Your task to perform on an android device: Open display settings Image 0: 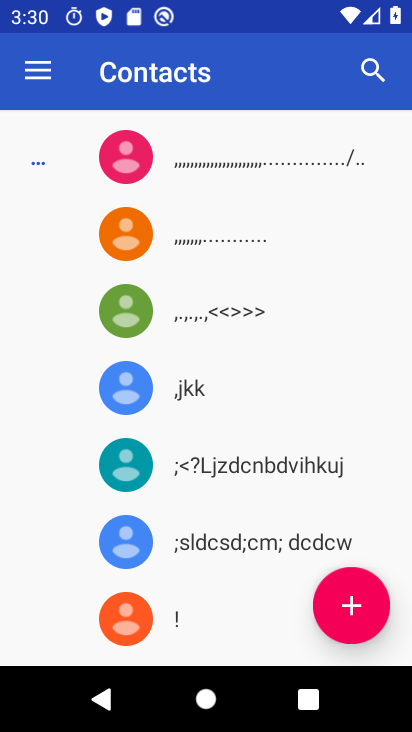
Step 0: press home button
Your task to perform on an android device: Open display settings Image 1: 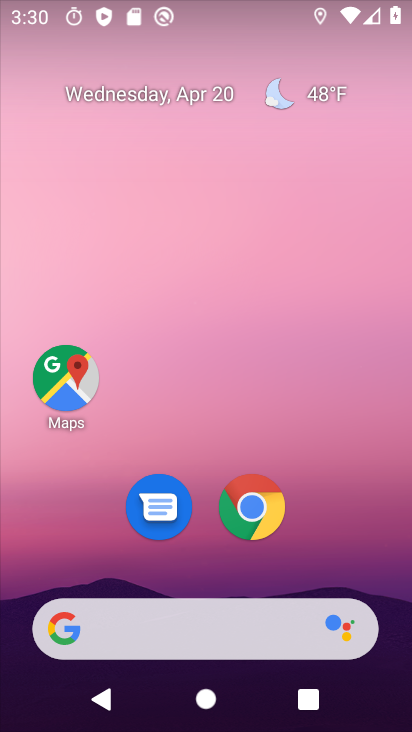
Step 1: drag from (205, 649) to (246, 303)
Your task to perform on an android device: Open display settings Image 2: 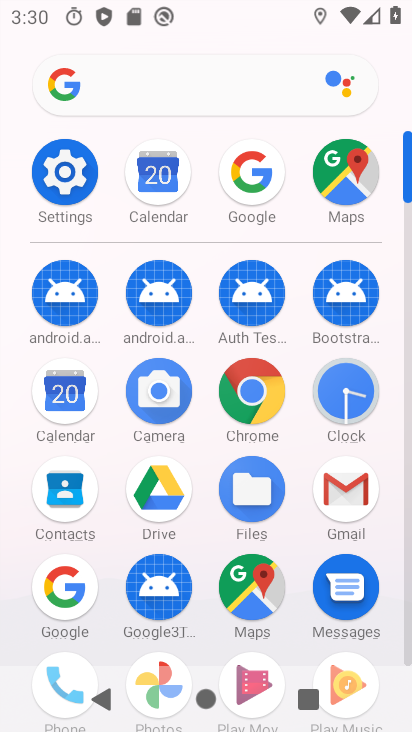
Step 2: click (68, 167)
Your task to perform on an android device: Open display settings Image 3: 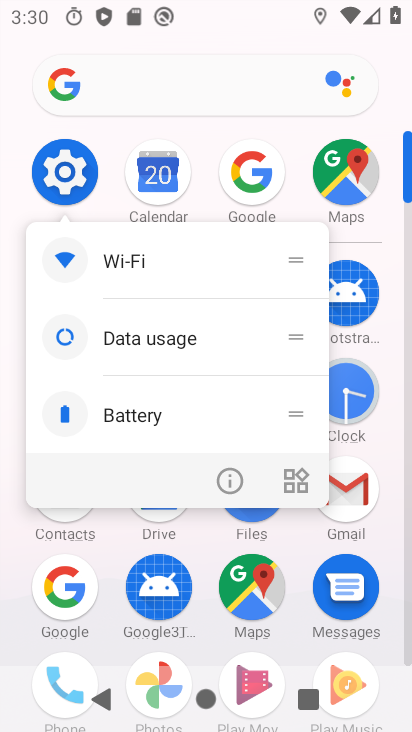
Step 3: click (75, 180)
Your task to perform on an android device: Open display settings Image 4: 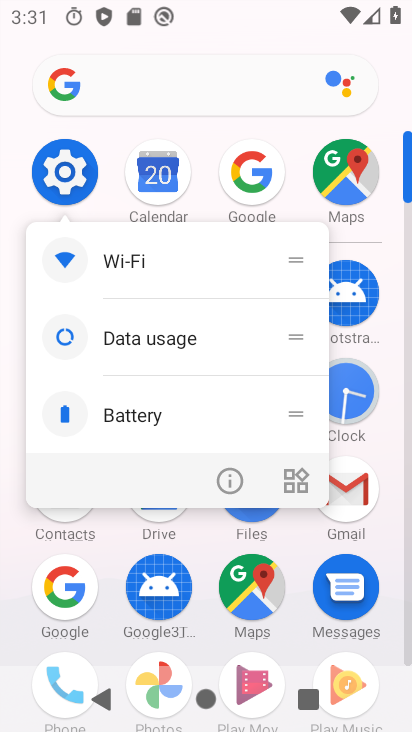
Step 4: click (63, 178)
Your task to perform on an android device: Open display settings Image 5: 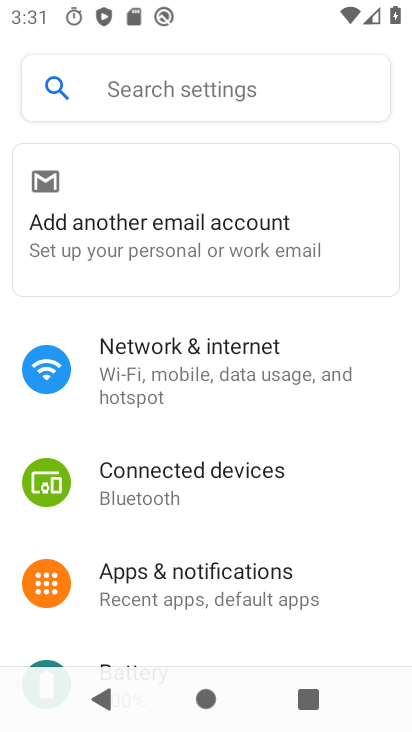
Step 5: drag from (146, 513) to (147, 248)
Your task to perform on an android device: Open display settings Image 6: 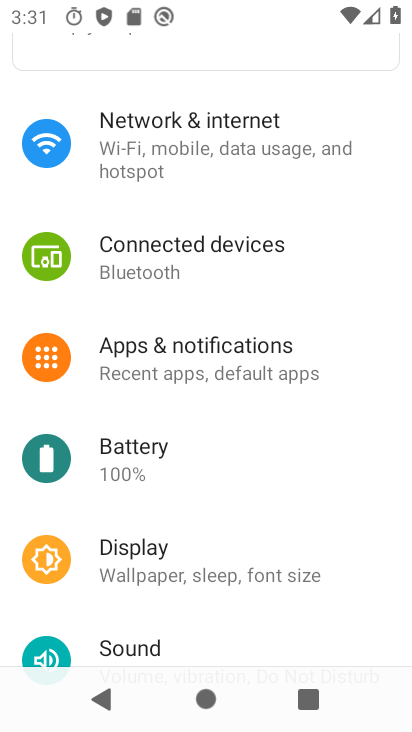
Step 6: click (185, 571)
Your task to perform on an android device: Open display settings Image 7: 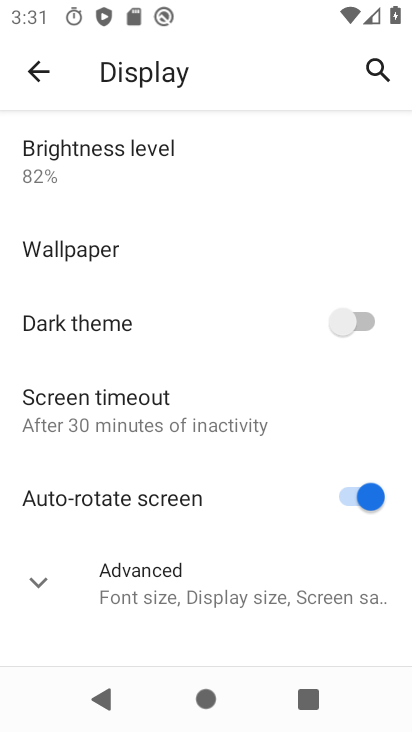
Step 7: task complete